Your task to perform on an android device: Go to accessibility settings Image 0: 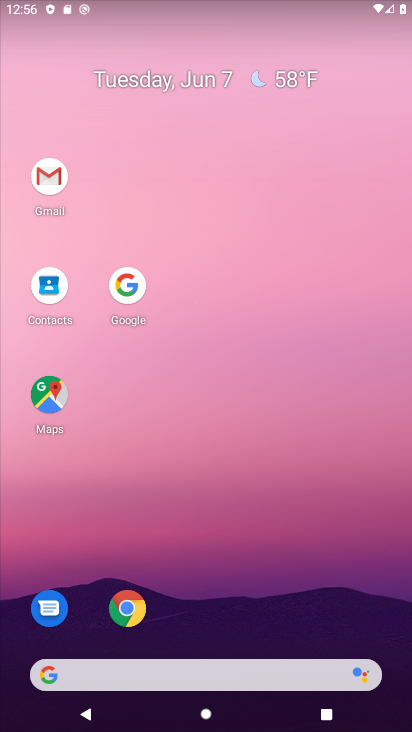
Step 0: drag from (55, 177) to (229, 307)
Your task to perform on an android device: Go to accessibility settings Image 1: 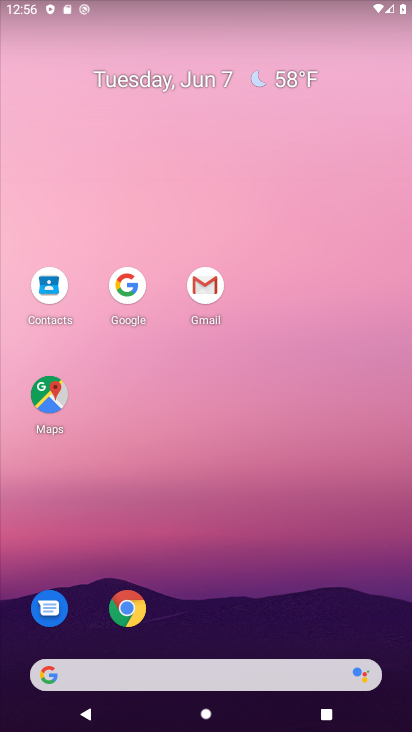
Step 1: drag from (255, 507) to (273, 155)
Your task to perform on an android device: Go to accessibility settings Image 2: 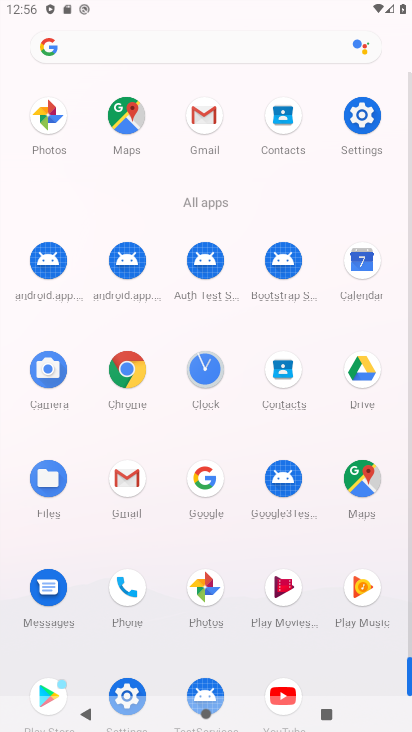
Step 2: drag from (365, 117) to (78, 177)
Your task to perform on an android device: Go to accessibility settings Image 3: 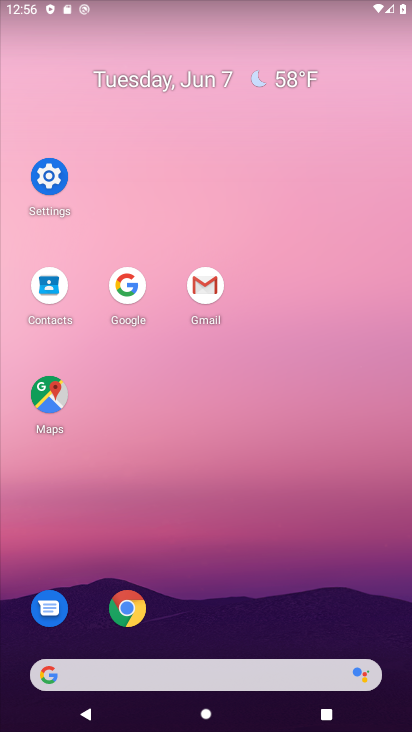
Step 3: click (51, 186)
Your task to perform on an android device: Go to accessibility settings Image 4: 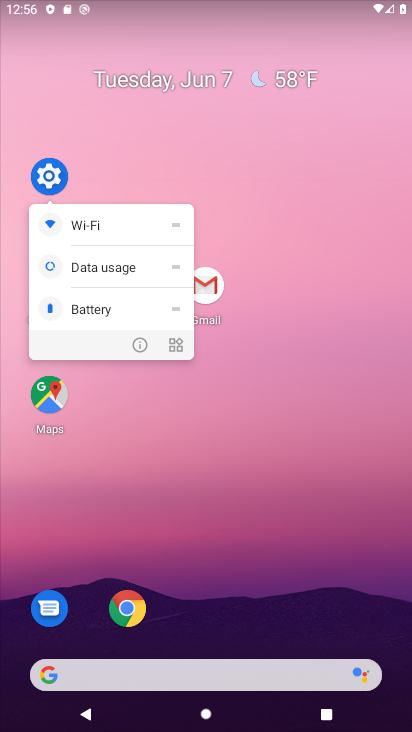
Step 4: click (56, 183)
Your task to perform on an android device: Go to accessibility settings Image 5: 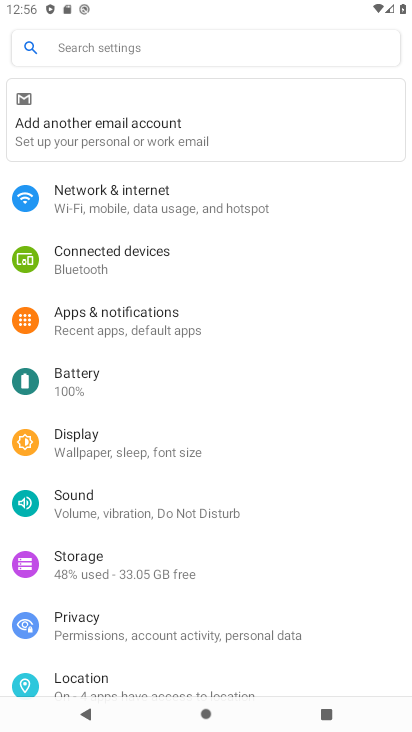
Step 5: drag from (151, 587) to (146, 246)
Your task to perform on an android device: Go to accessibility settings Image 6: 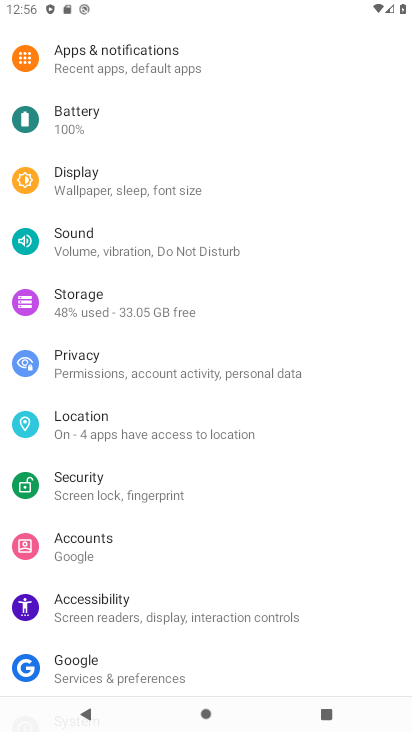
Step 6: drag from (191, 595) to (182, 298)
Your task to perform on an android device: Go to accessibility settings Image 7: 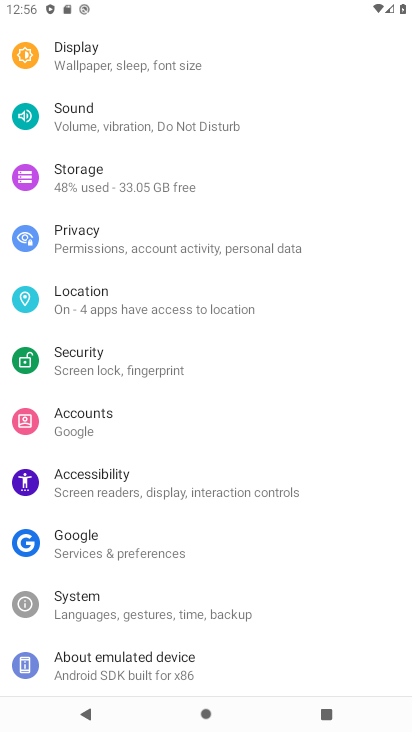
Step 7: click (197, 491)
Your task to perform on an android device: Go to accessibility settings Image 8: 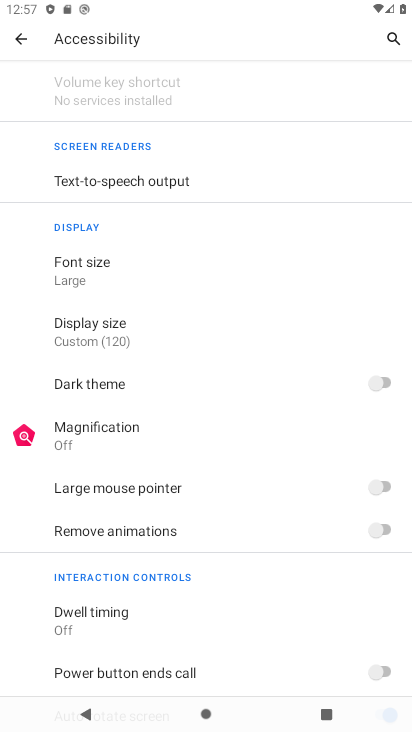
Step 8: task complete